Your task to perform on an android device: Go to Android settings Image 0: 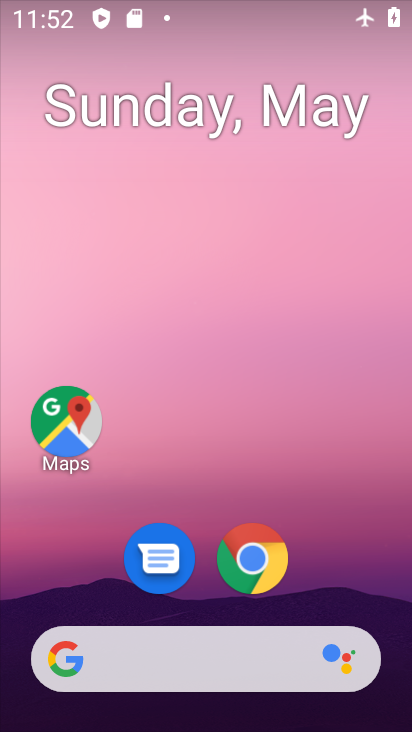
Step 0: drag from (362, 592) to (344, 169)
Your task to perform on an android device: Go to Android settings Image 1: 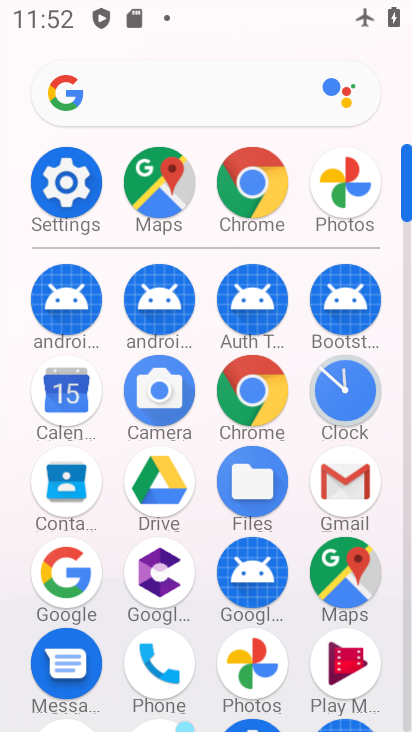
Step 1: click (78, 190)
Your task to perform on an android device: Go to Android settings Image 2: 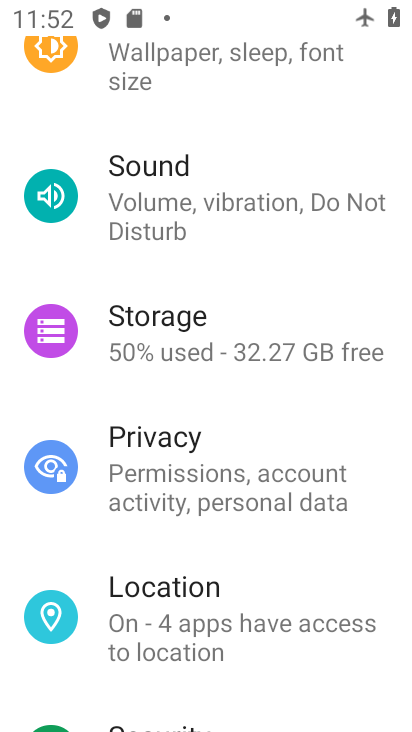
Step 2: drag from (377, 251) to (374, 423)
Your task to perform on an android device: Go to Android settings Image 3: 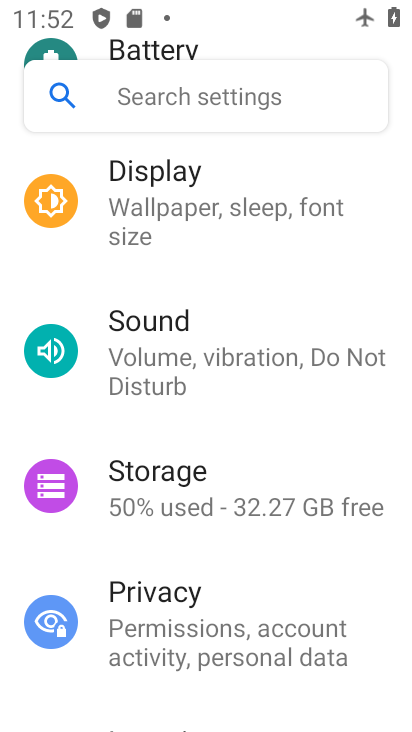
Step 3: drag from (371, 167) to (368, 383)
Your task to perform on an android device: Go to Android settings Image 4: 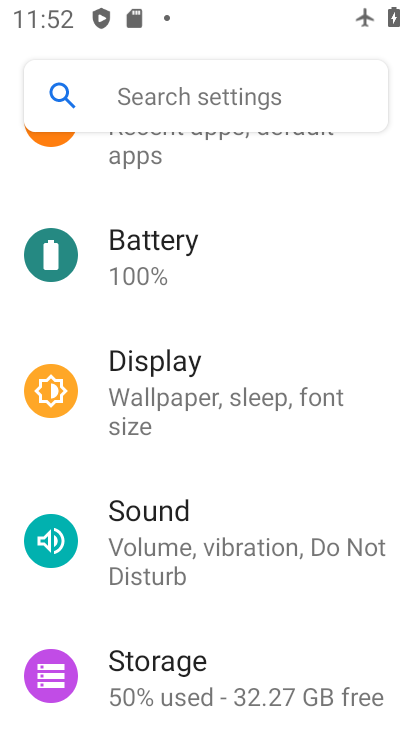
Step 4: drag from (355, 168) to (353, 390)
Your task to perform on an android device: Go to Android settings Image 5: 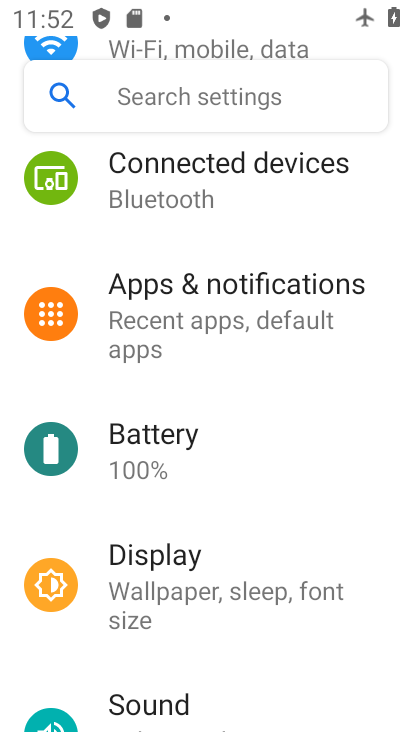
Step 5: drag from (383, 169) to (375, 392)
Your task to perform on an android device: Go to Android settings Image 6: 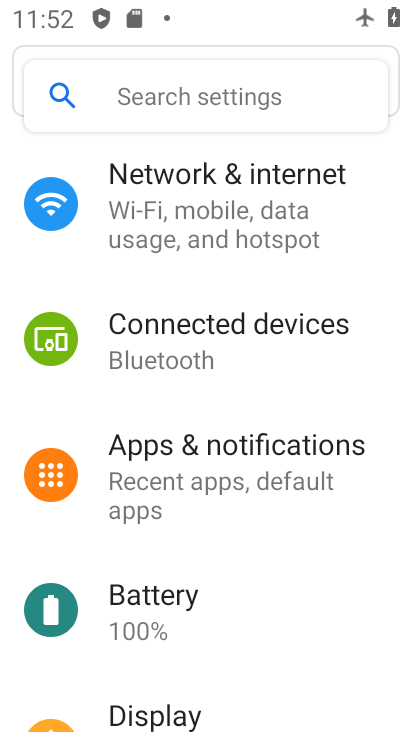
Step 6: drag from (371, 157) to (372, 427)
Your task to perform on an android device: Go to Android settings Image 7: 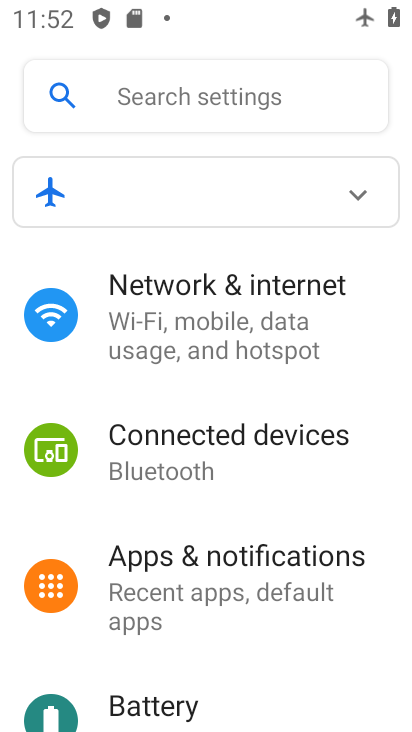
Step 7: drag from (348, 662) to (367, 456)
Your task to perform on an android device: Go to Android settings Image 8: 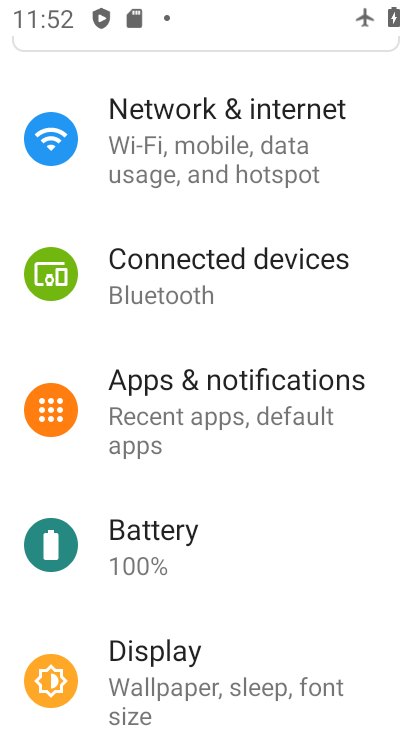
Step 8: drag from (350, 632) to (357, 404)
Your task to perform on an android device: Go to Android settings Image 9: 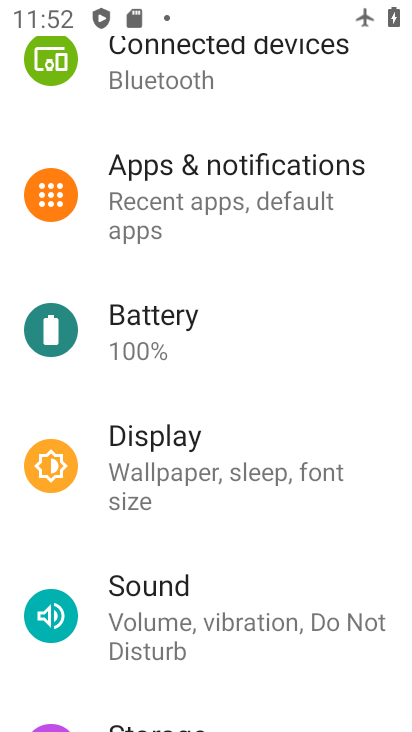
Step 9: drag from (344, 656) to (342, 461)
Your task to perform on an android device: Go to Android settings Image 10: 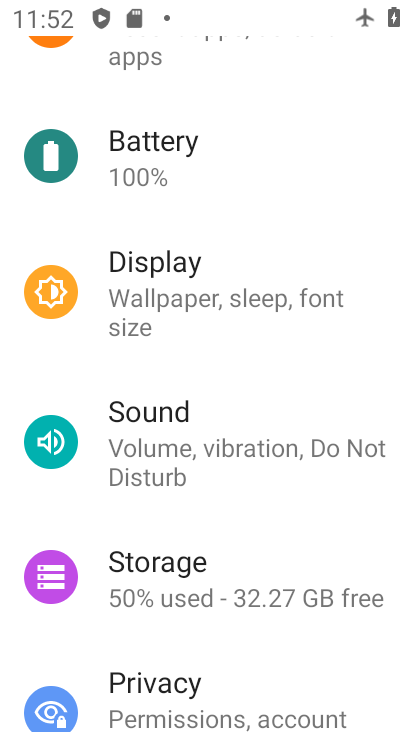
Step 10: drag from (339, 636) to (339, 462)
Your task to perform on an android device: Go to Android settings Image 11: 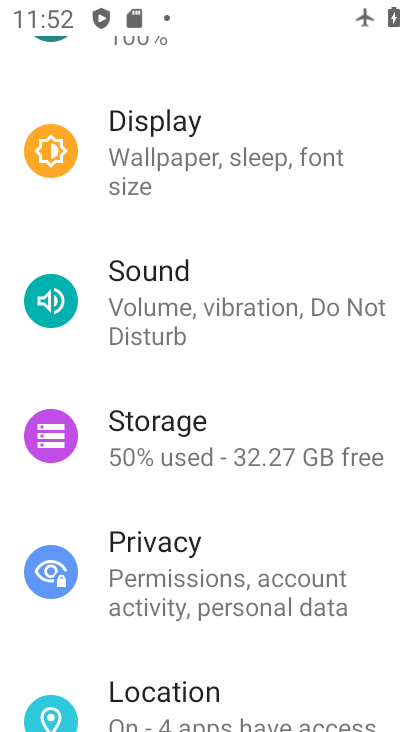
Step 11: drag from (320, 644) to (316, 340)
Your task to perform on an android device: Go to Android settings Image 12: 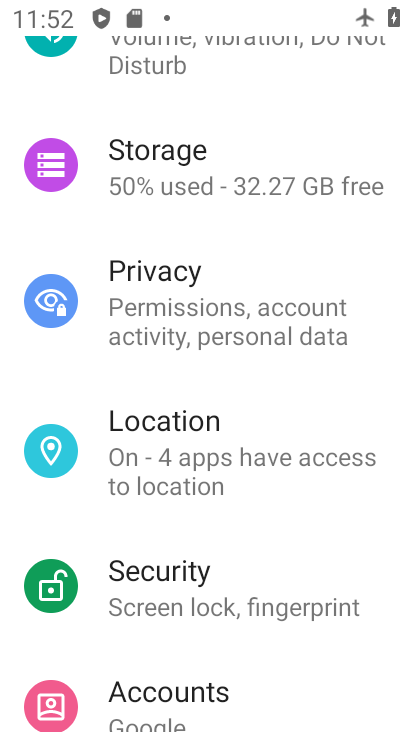
Step 12: drag from (278, 667) to (312, 395)
Your task to perform on an android device: Go to Android settings Image 13: 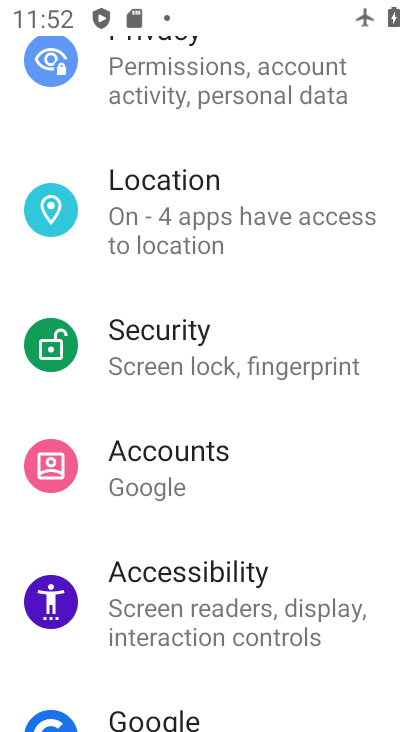
Step 13: drag from (310, 677) to (321, 435)
Your task to perform on an android device: Go to Android settings Image 14: 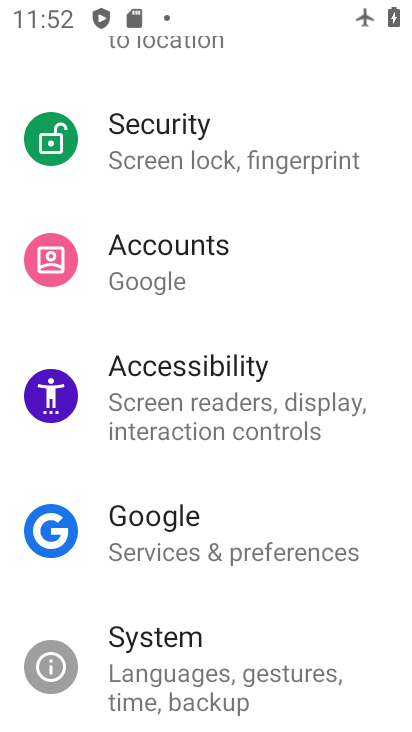
Step 14: click (216, 672)
Your task to perform on an android device: Go to Android settings Image 15: 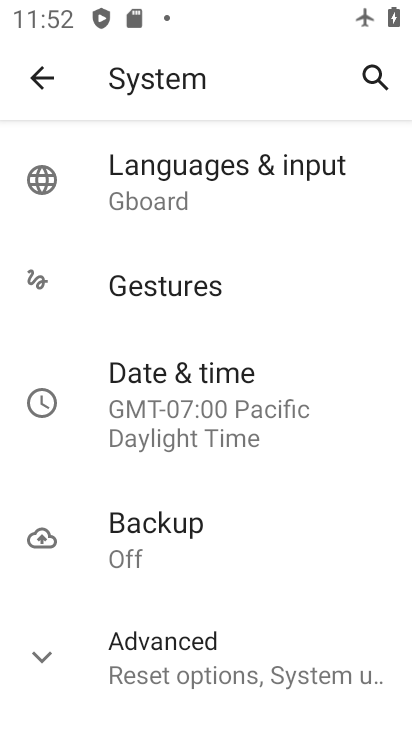
Step 15: click (205, 678)
Your task to perform on an android device: Go to Android settings Image 16: 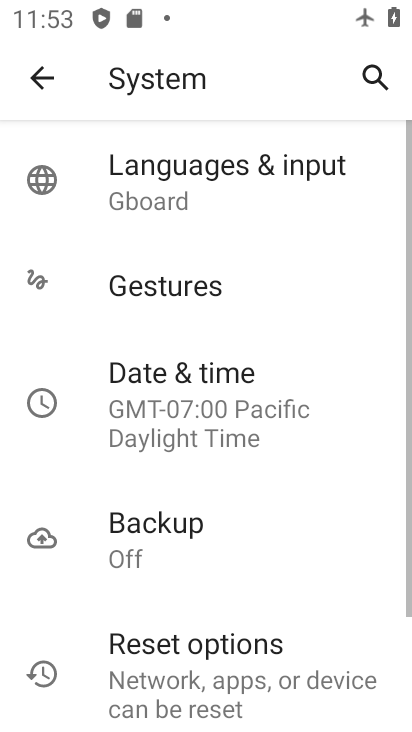
Step 16: task complete